Your task to perform on an android device: delete browsing data in the chrome app Image 0: 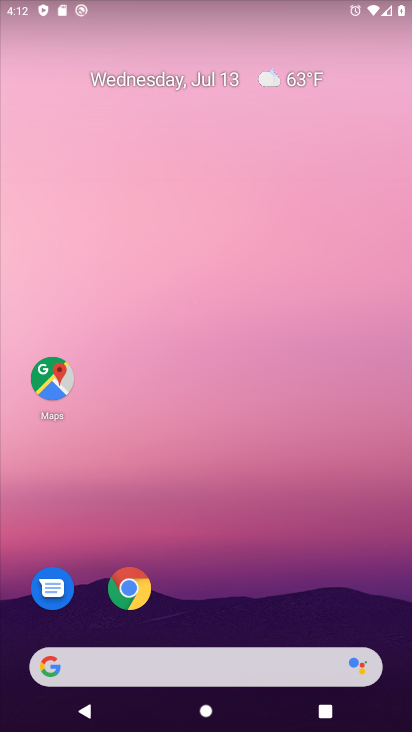
Step 0: click (131, 588)
Your task to perform on an android device: delete browsing data in the chrome app Image 1: 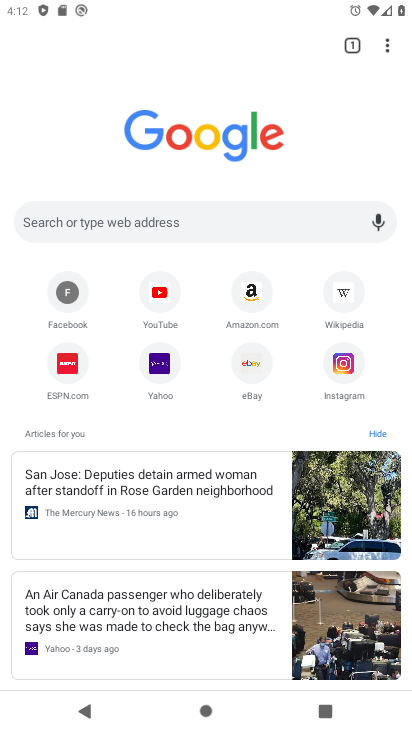
Step 1: click (387, 46)
Your task to perform on an android device: delete browsing data in the chrome app Image 2: 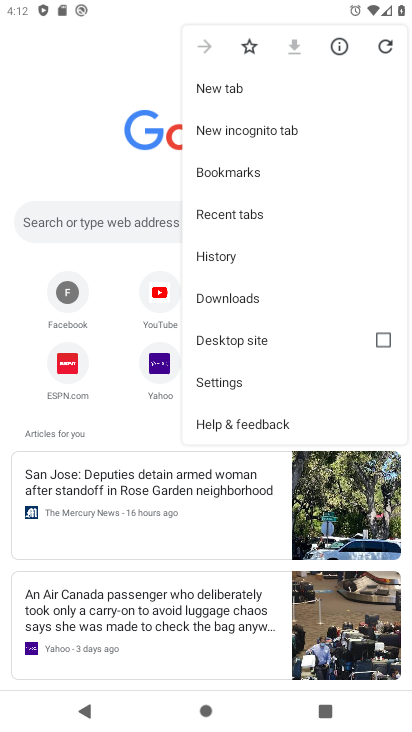
Step 2: click (230, 382)
Your task to perform on an android device: delete browsing data in the chrome app Image 3: 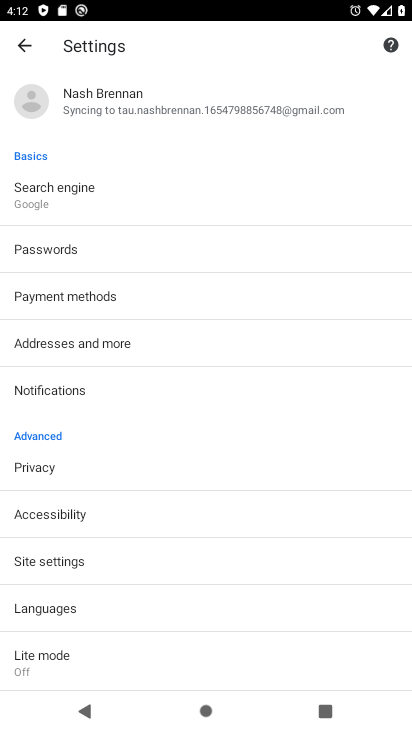
Step 3: click (50, 469)
Your task to perform on an android device: delete browsing data in the chrome app Image 4: 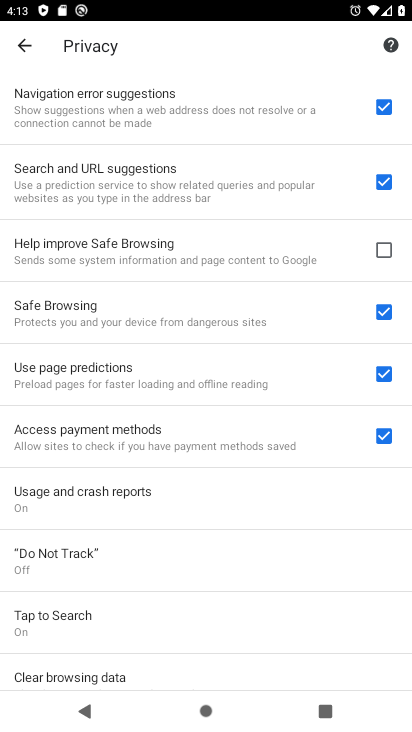
Step 4: click (58, 674)
Your task to perform on an android device: delete browsing data in the chrome app Image 5: 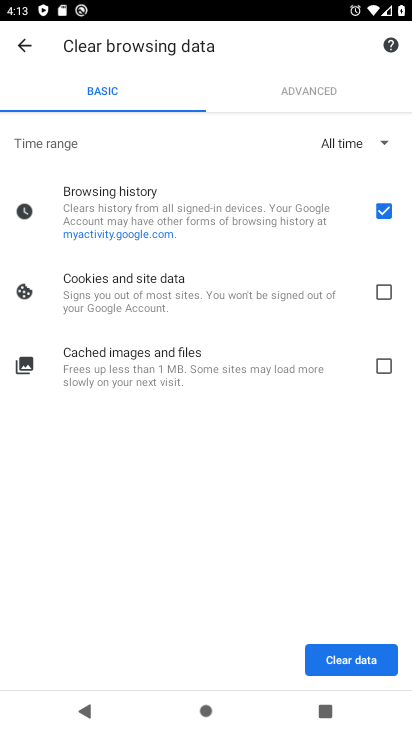
Step 5: click (387, 290)
Your task to perform on an android device: delete browsing data in the chrome app Image 6: 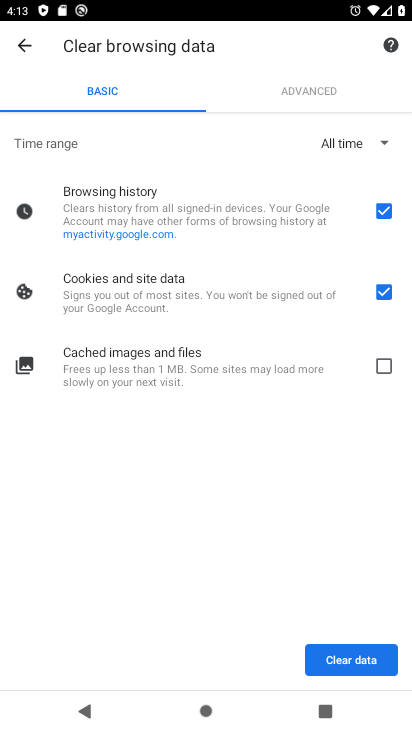
Step 6: click (383, 364)
Your task to perform on an android device: delete browsing data in the chrome app Image 7: 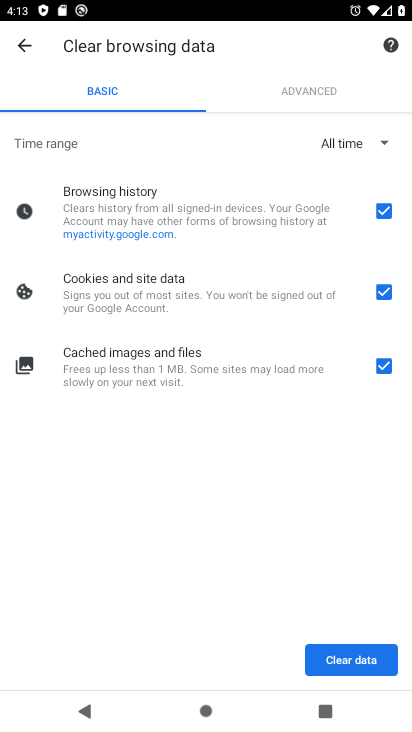
Step 7: click (341, 652)
Your task to perform on an android device: delete browsing data in the chrome app Image 8: 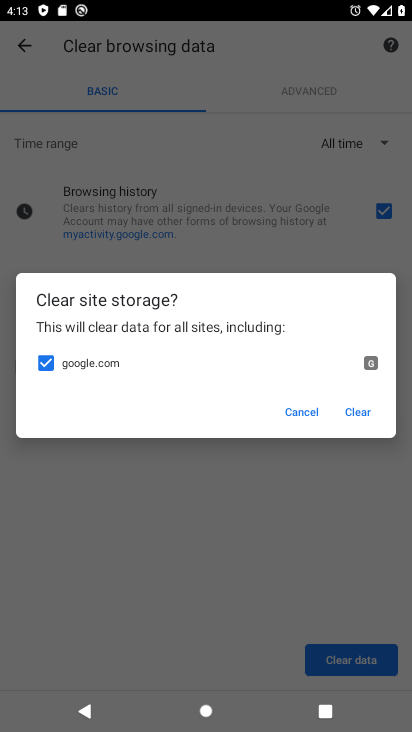
Step 8: click (357, 415)
Your task to perform on an android device: delete browsing data in the chrome app Image 9: 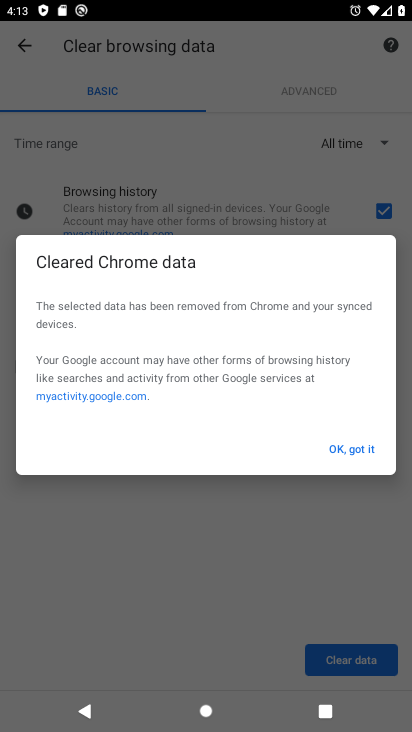
Step 9: click (360, 446)
Your task to perform on an android device: delete browsing data in the chrome app Image 10: 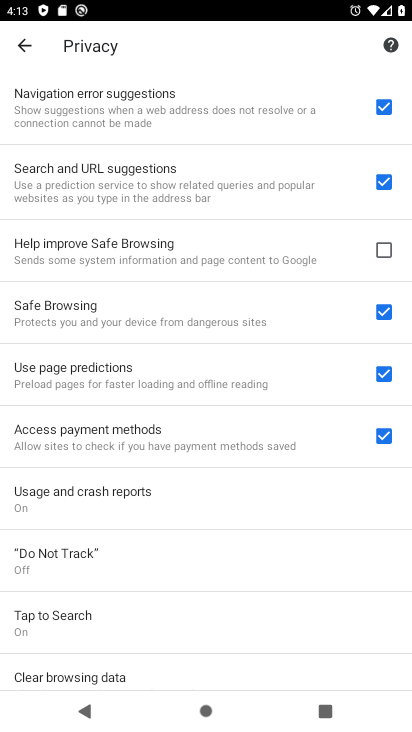
Step 10: task complete